Your task to perform on an android device: turn on airplane mode Image 0: 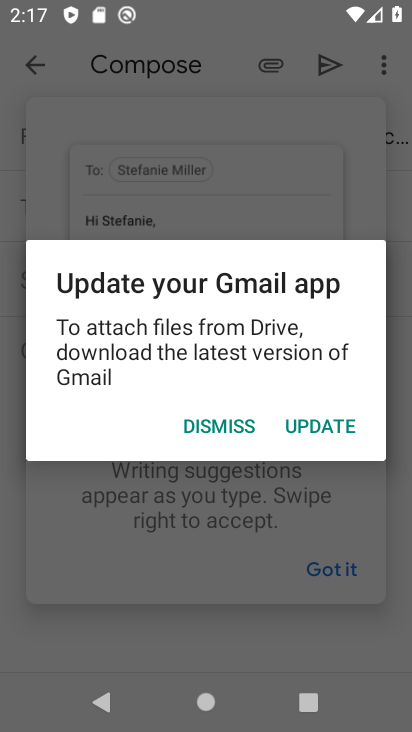
Step 0: press home button
Your task to perform on an android device: turn on airplane mode Image 1: 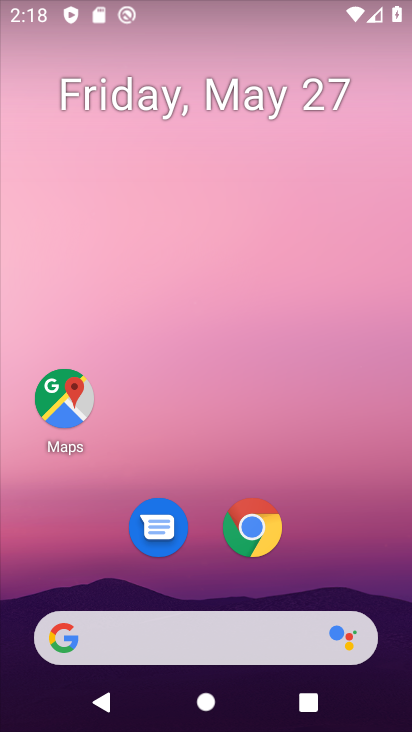
Step 1: drag from (258, 532) to (285, 158)
Your task to perform on an android device: turn on airplane mode Image 2: 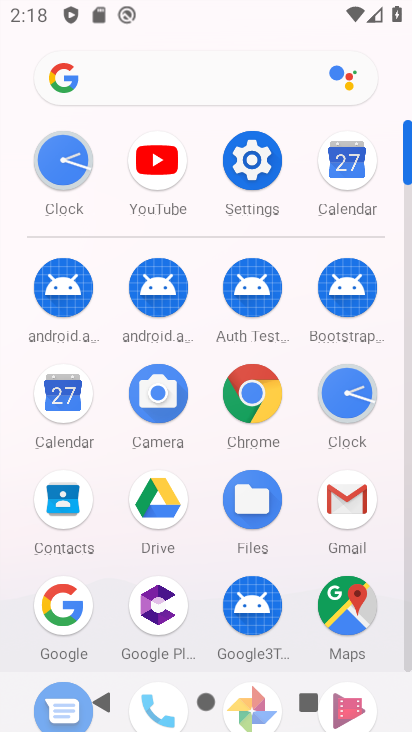
Step 2: click (258, 166)
Your task to perform on an android device: turn on airplane mode Image 3: 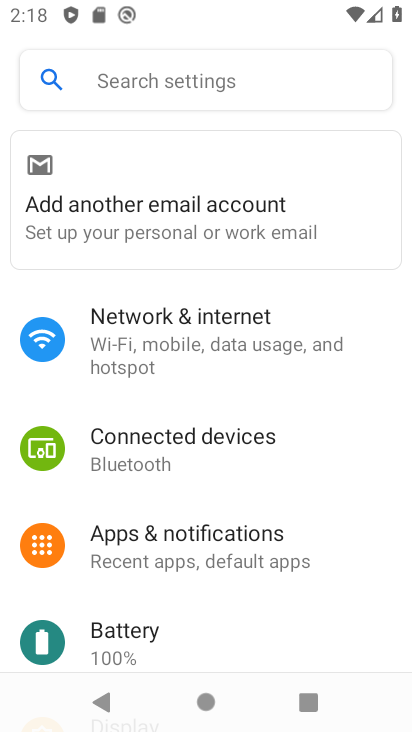
Step 3: click (241, 334)
Your task to perform on an android device: turn on airplane mode Image 4: 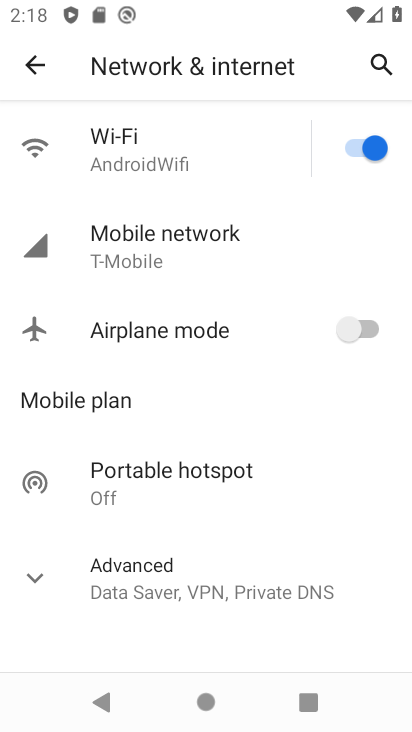
Step 4: click (373, 330)
Your task to perform on an android device: turn on airplane mode Image 5: 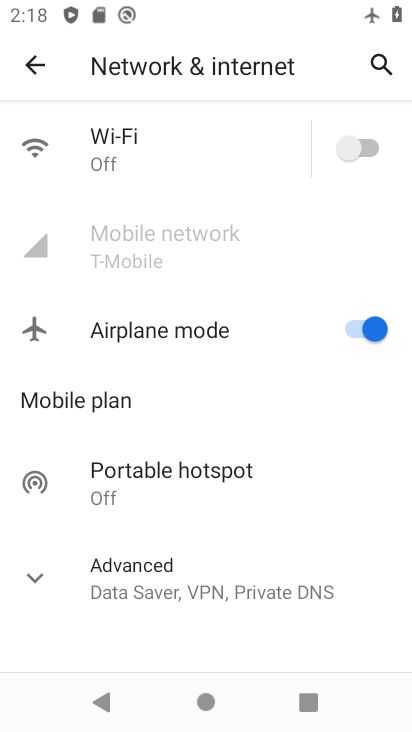
Step 5: task complete